Your task to perform on an android device: Search for razer blade on target.com, select the first entry, add it to the cart, then select checkout. Image 0: 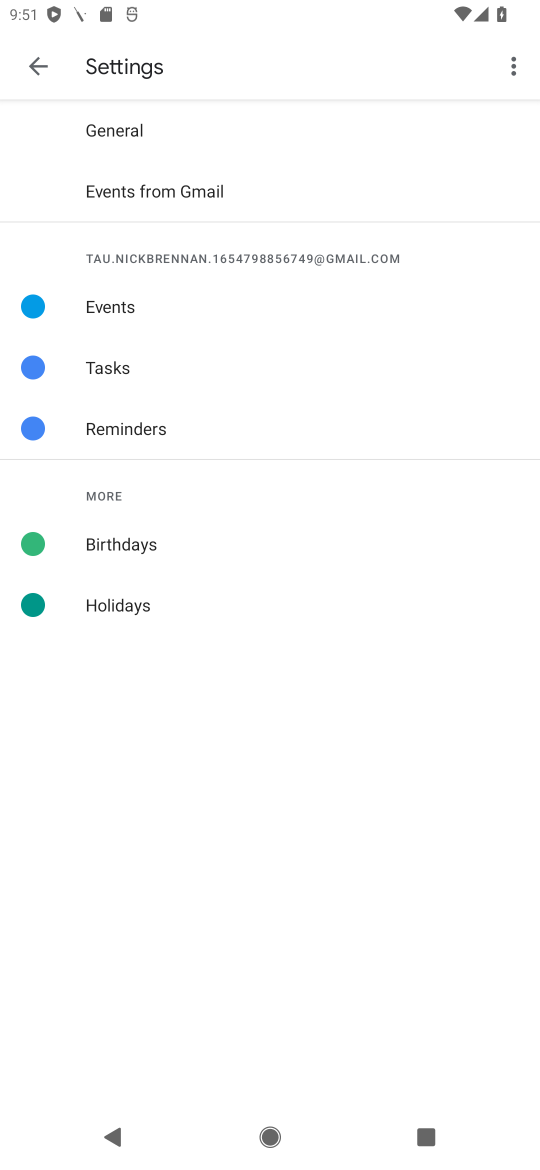
Step 0: press home button
Your task to perform on an android device: Search for razer blade on target.com, select the first entry, add it to the cart, then select checkout. Image 1: 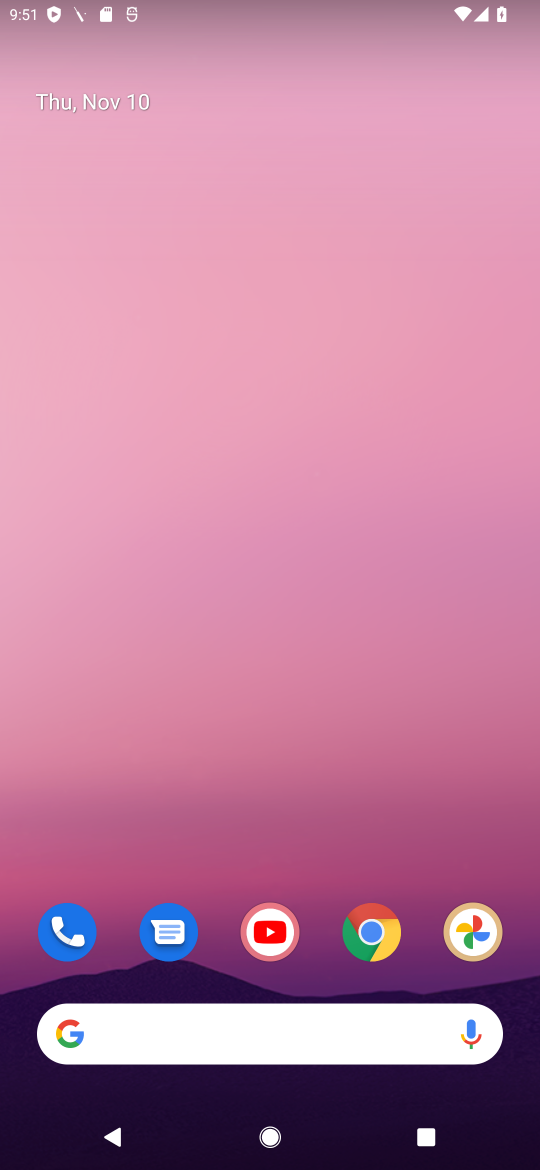
Step 1: click (379, 939)
Your task to perform on an android device: Search for razer blade on target.com, select the first entry, add it to the cart, then select checkout. Image 2: 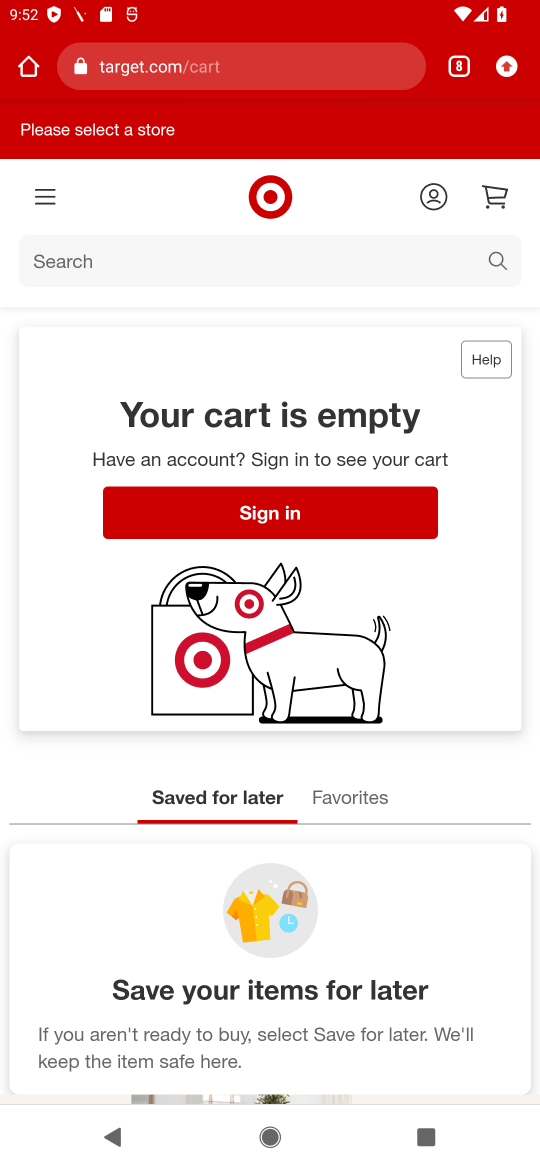
Step 2: click (85, 253)
Your task to perform on an android device: Search for razer blade on target.com, select the first entry, add it to the cart, then select checkout. Image 3: 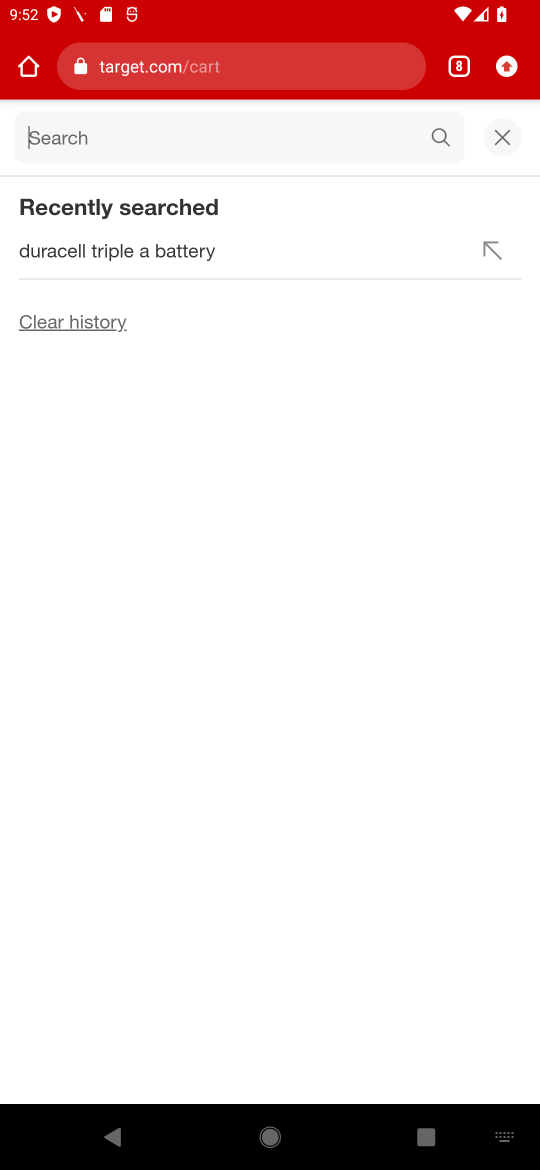
Step 3: type "razer blade"
Your task to perform on an android device: Search for razer blade on target.com, select the first entry, add it to the cart, then select checkout. Image 4: 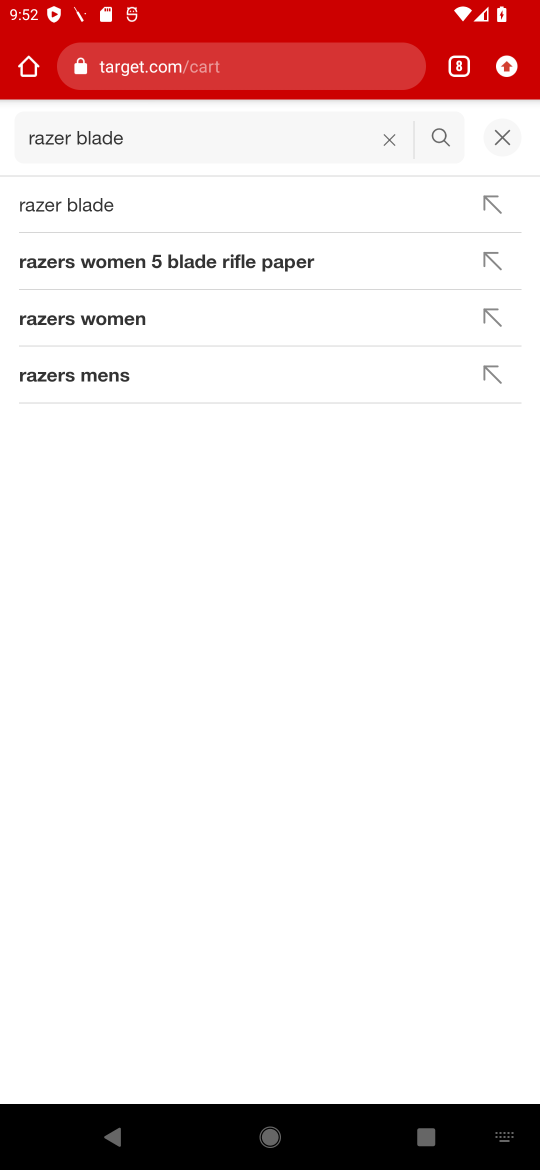
Step 4: click (439, 138)
Your task to perform on an android device: Search for razer blade on target.com, select the first entry, add it to the cart, then select checkout. Image 5: 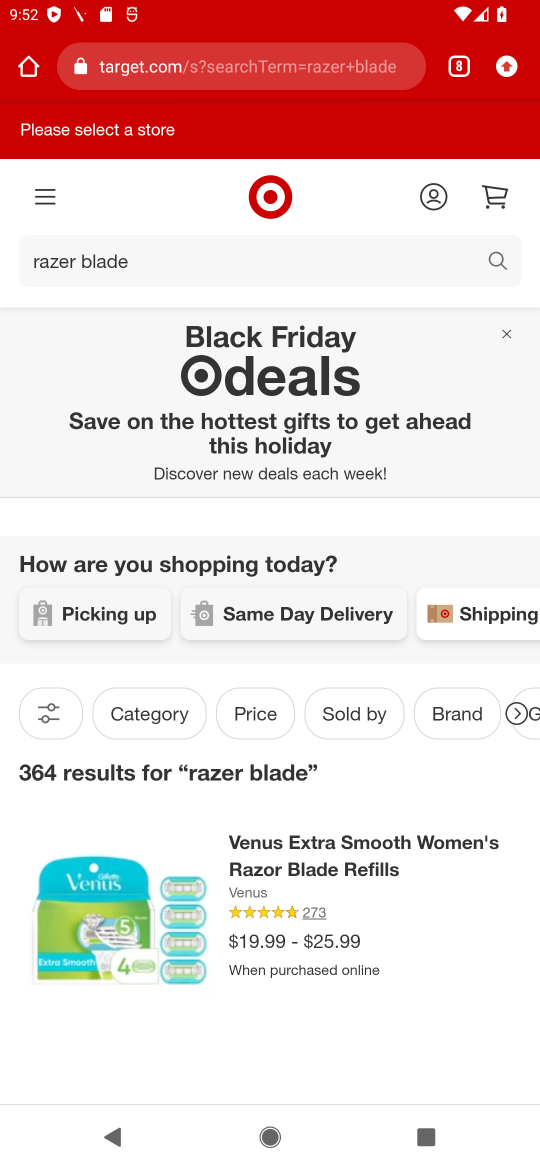
Step 5: click (321, 852)
Your task to perform on an android device: Search for razer blade on target.com, select the first entry, add it to the cart, then select checkout. Image 6: 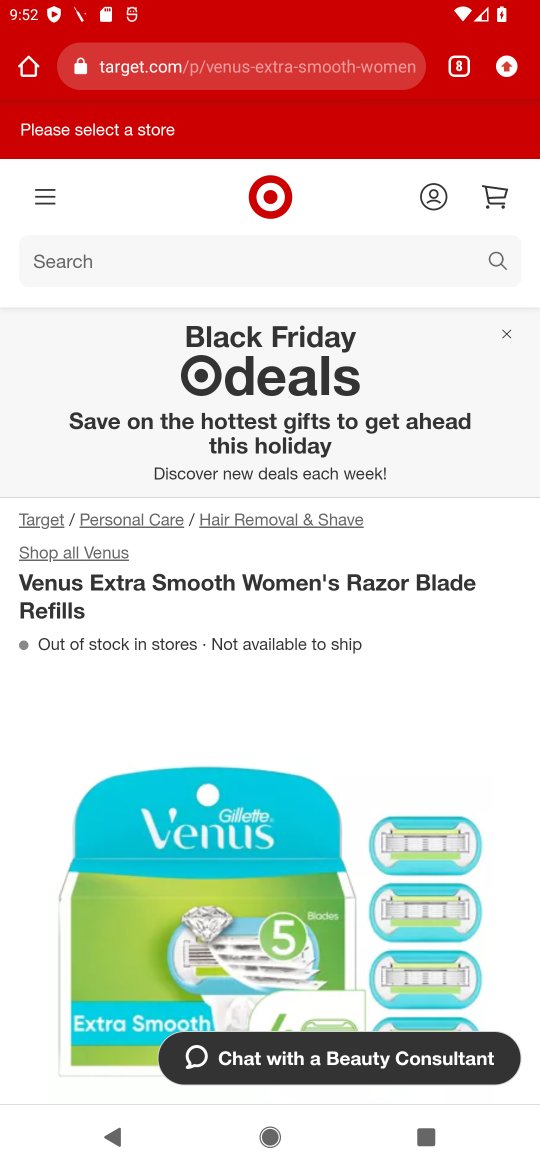
Step 6: drag from (386, 745) to (385, 505)
Your task to perform on an android device: Search for razer blade on target.com, select the first entry, add it to the cart, then select checkout. Image 7: 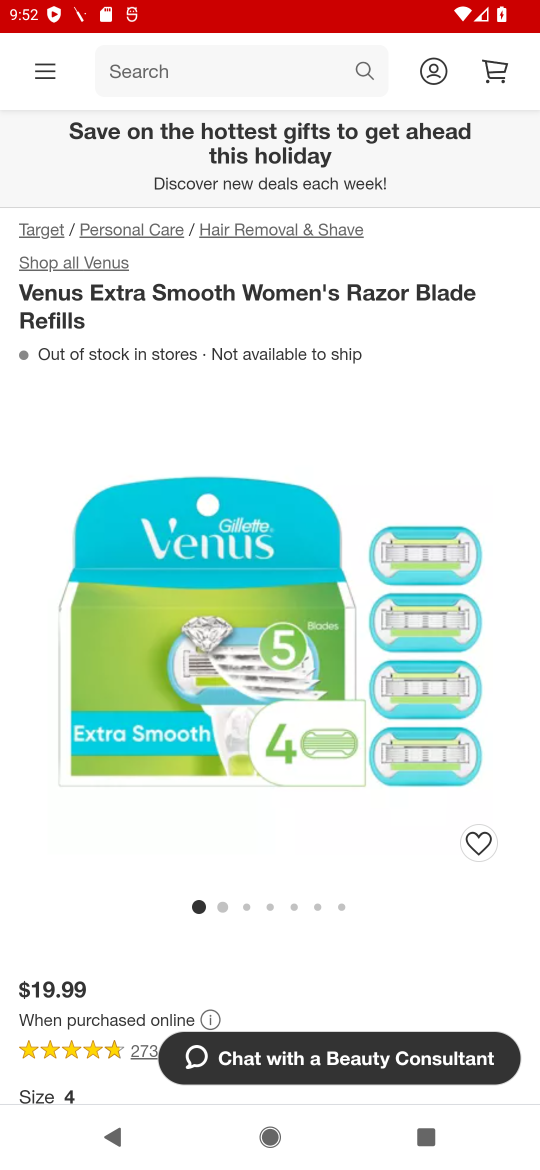
Step 7: drag from (323, 954) to (303, 754)
Your task to perform on an android device: Search for razer blade on target.com, select the first entry, add it to the cart, then select checkout. Image 8: 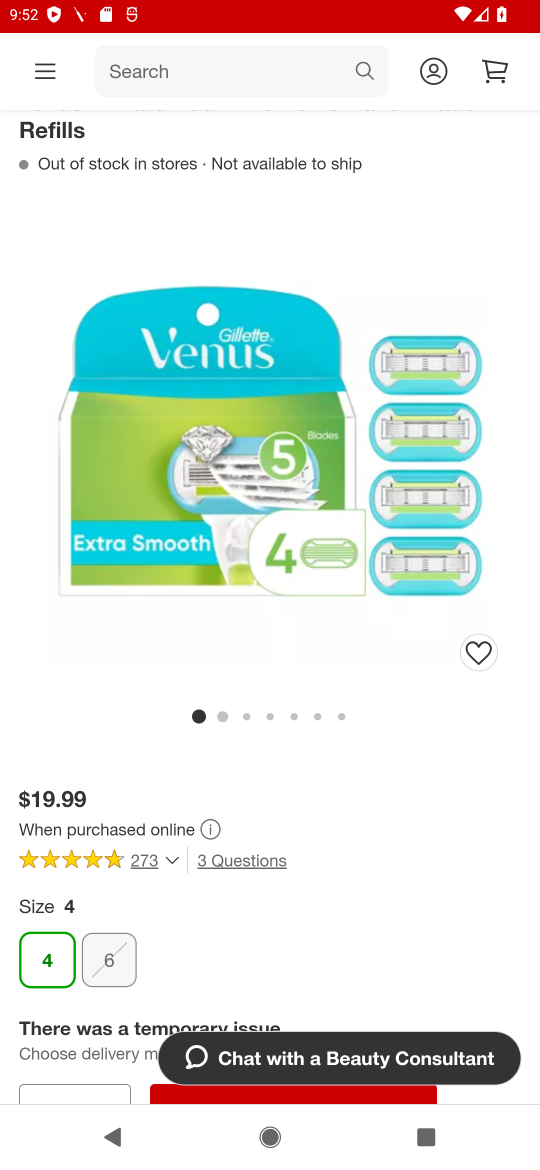
Step 8: drag from (288, 934) to (280, 797)
Your task to perform on an android device: Search for razer blade on target.com, select the first entry, add it to the cart, then select checkout. Image 9: 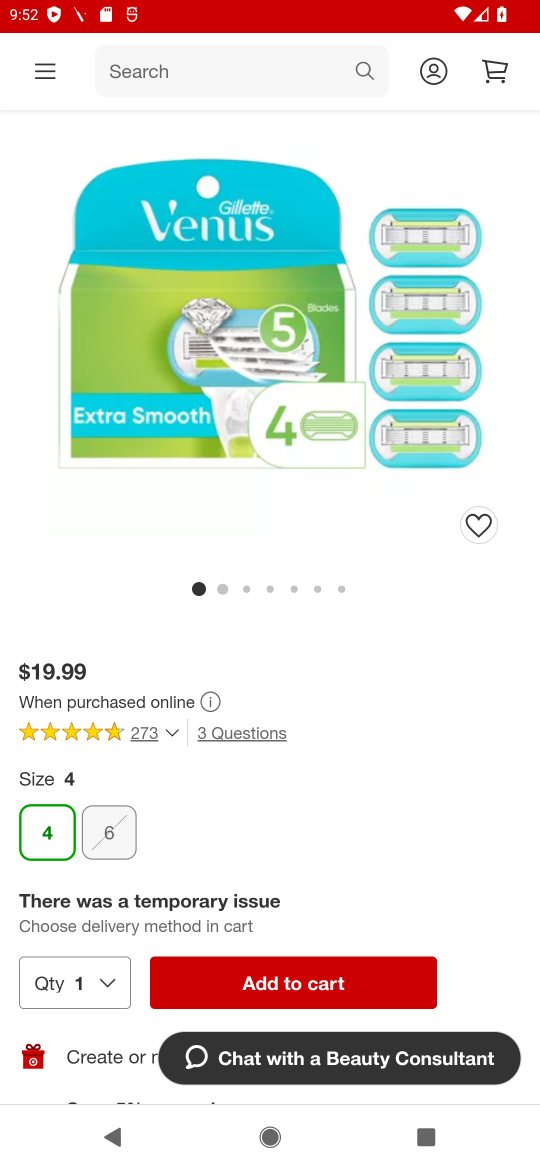
Step 9: click (311, 973)
Your task to perform on an android device: Search for razer blade on target.com, select the first entry, add it to the cart, then select checkout. Image 10: 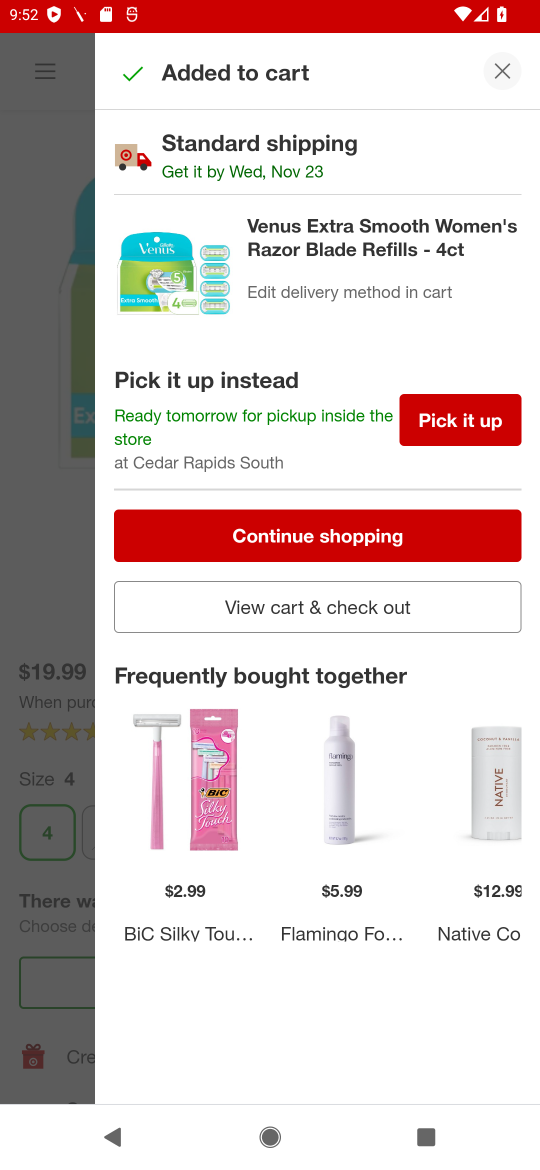
Step 10: click (298, 616)
Your task to perform on an android device: Search for razer blade on target.com, select the first entry, add it to the cart, then select checkout. Image 11: 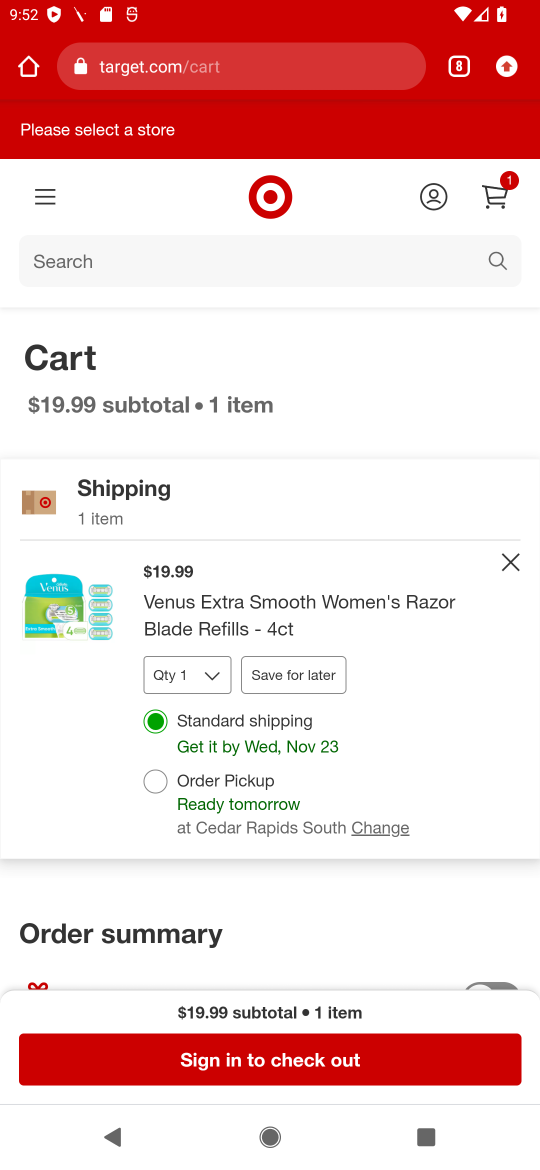
Step 11: click (317, 1064)
Your task to perform on an android device: Search for razer blade on target.com, select the first entry, add it to the cart, then select checkout. Image 12: 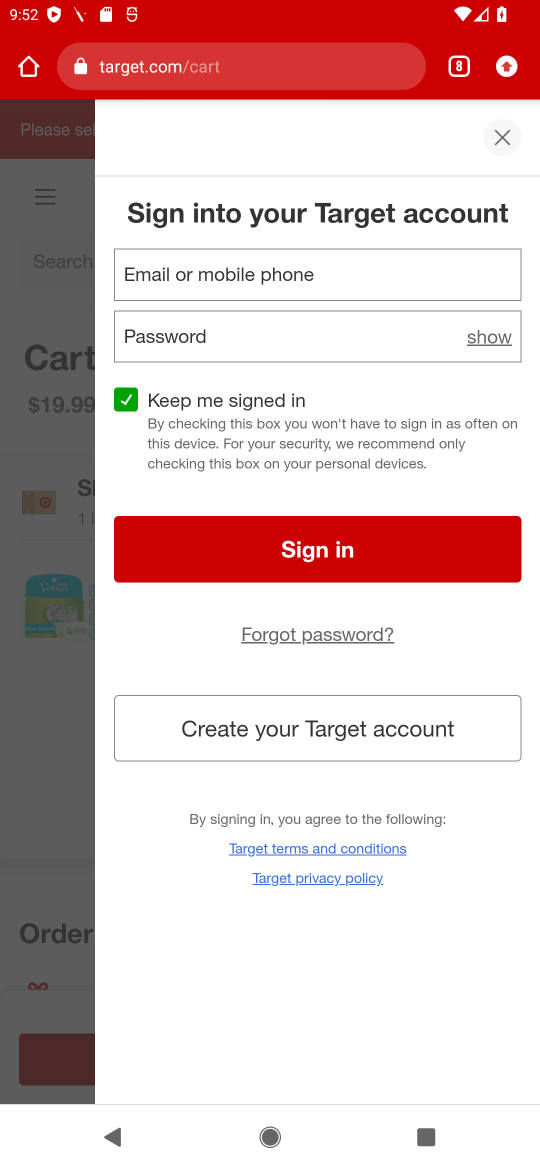
Step 12: task complete